Your task to perform on an android device: Go to calendar. Show me events next week Image 0: 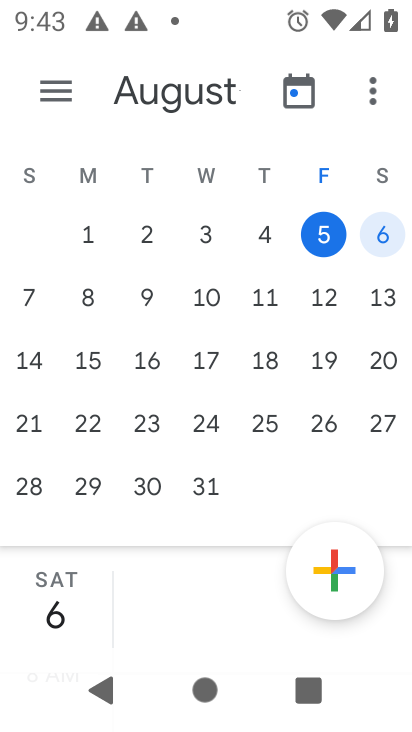
Step 0: click (36, 300)
Your task to perform on an android device: Go to calendar. Show me events next week Image 1: 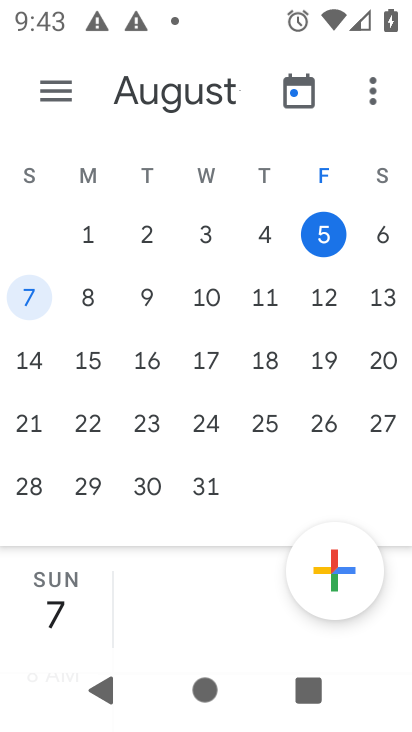
Step 1: click (14, 280)
Your task to perform on an android device: Go to calendar. Show me events next week Image 2: 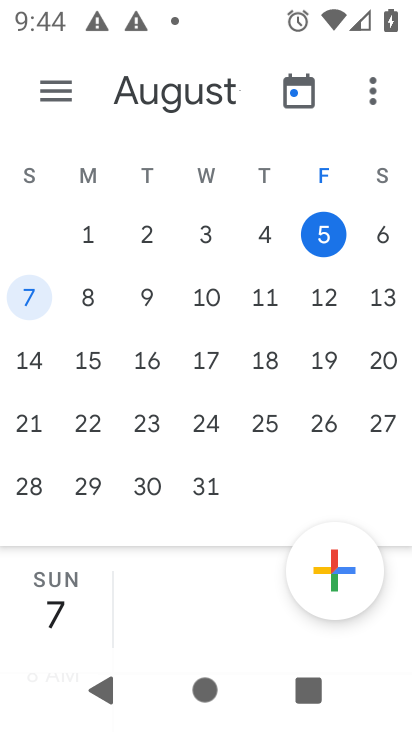
Step 2: click (23, 305)
Your task to perform on an android device: Go to calendar. Show me events next week Image 3: 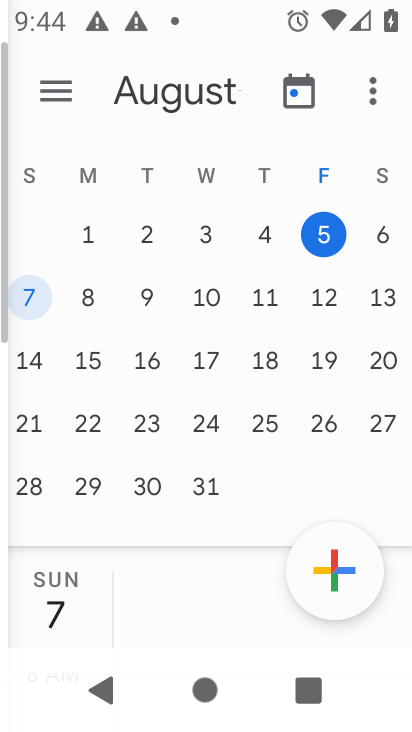
Step 3: click (74, 296)
Your task to perform on an android device: Go to calendar. Show me events next week Image 4: 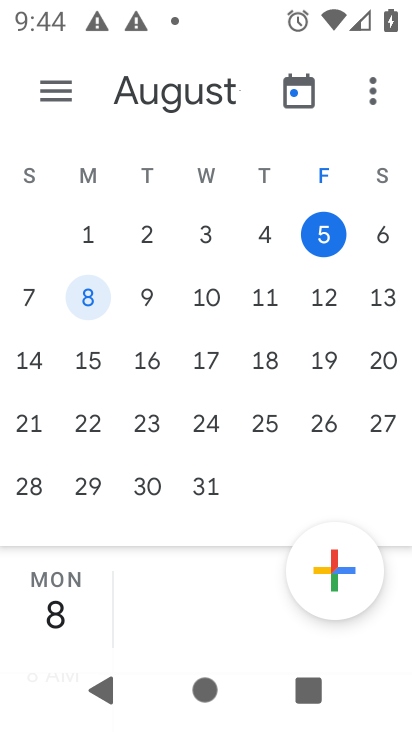
Step 4: task complete